Your task to perform on an android device: Show me the alarms in the clock app Image 0: 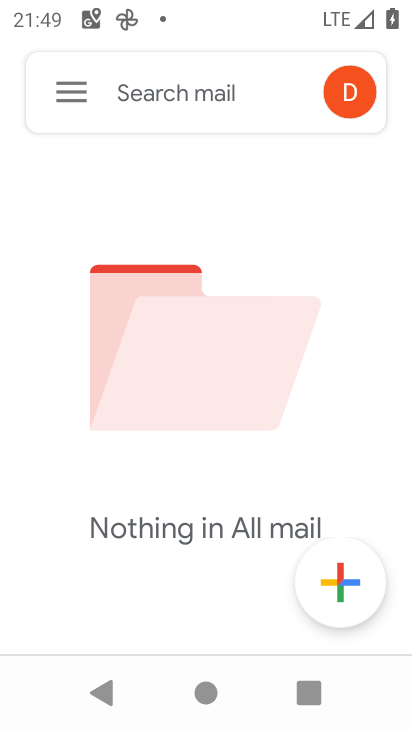
Step 0: press home button
Your task to perform on an android device: Show me the alarms in the clock app Image 1: 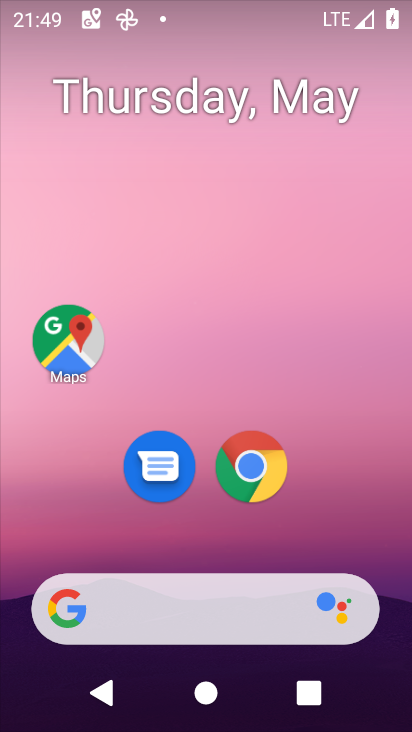
Step 1: drag from (373, 532) to (359, 94)
Your task to perform on an android device: Show me the alarms in the clock app Image 2: 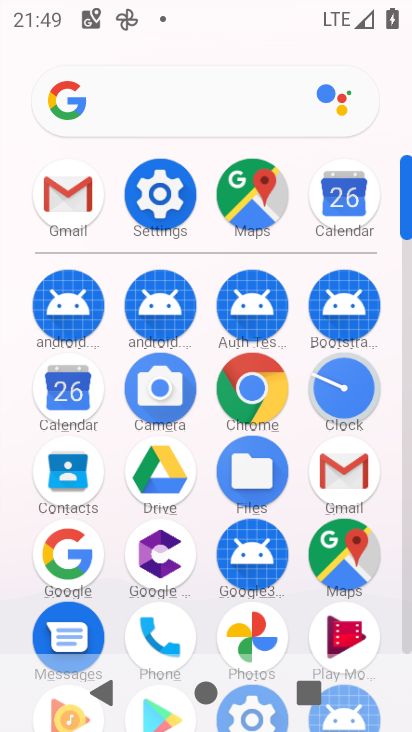
Step 2: click (343, 397)
Your task to perform on an android device: Show me the alarms in the clock app Image 3: 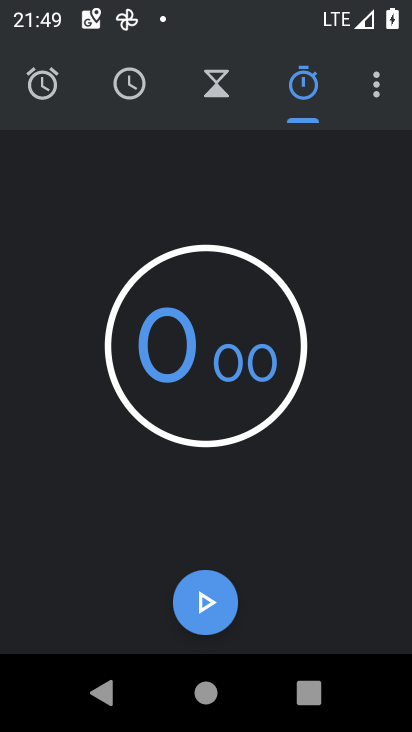
Step 3: task complete